Your task to perform on an android device: Open display settings Image 0: 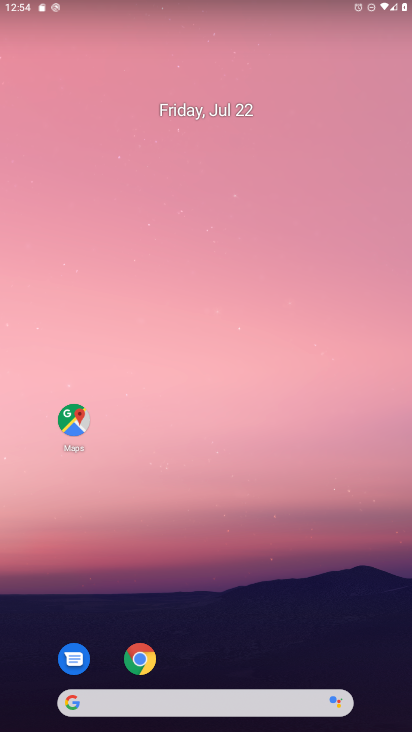
Step 0: drag from (227, 631) to (265, 164)
Your task to perform on an android device: Open display settings Image 1: 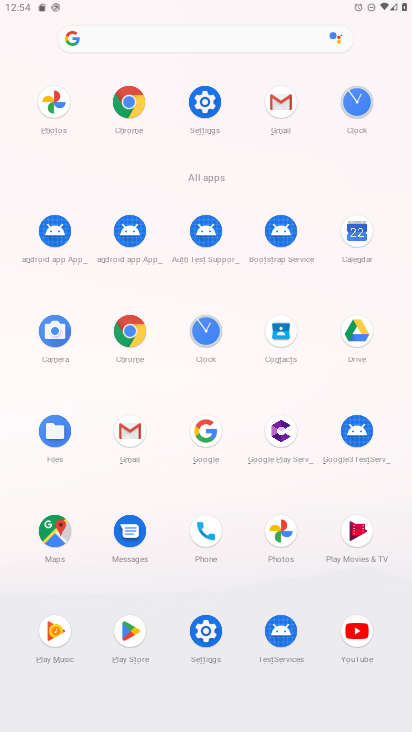
Step 1: click (194, 101)
Your task to perform on an android device: Open display settings Image 2: 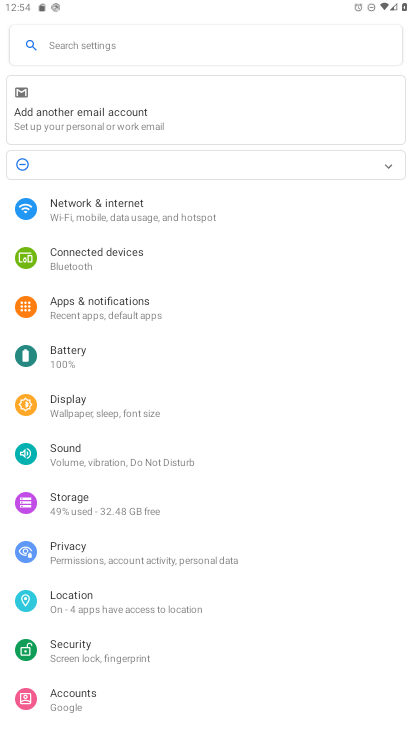
Step 2: click (75, 390)
Your task to perform on an android device: Open display settings Image 3: 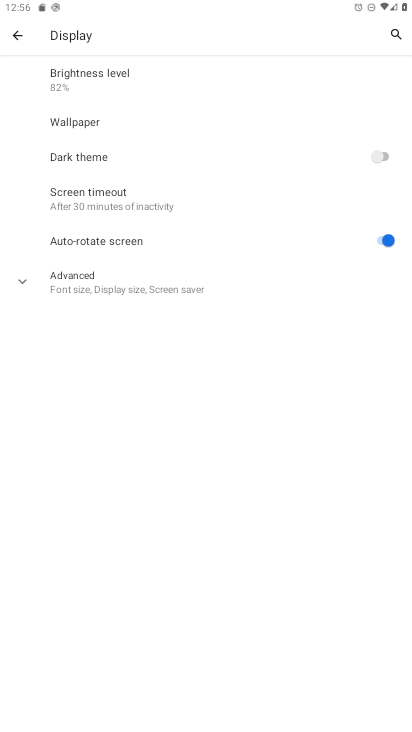
Step 3: task complete